Your task to perform on an android device: set the timer Image 0: 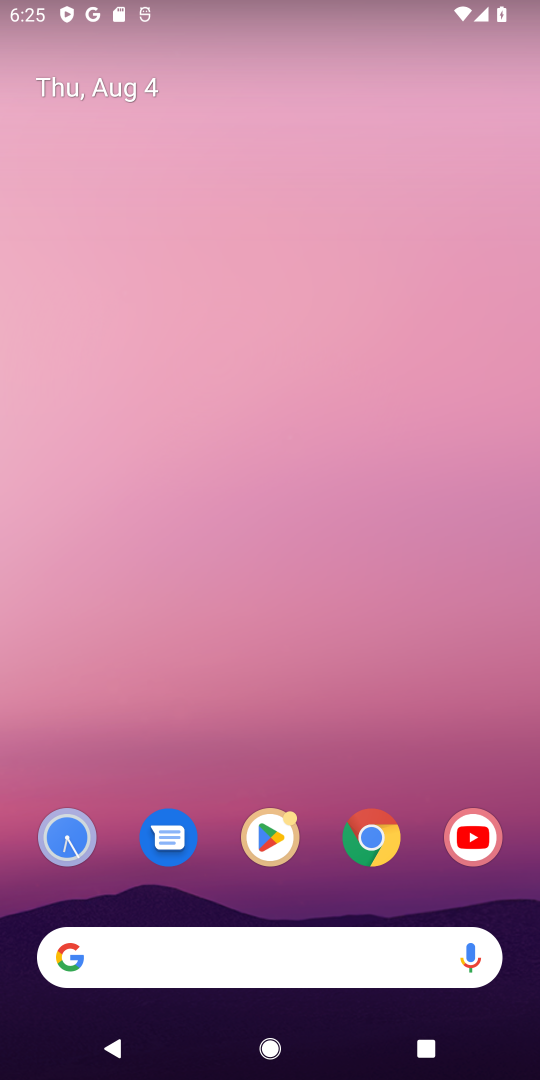
Step 0: press home button
Your task to perform on an android device: set the timer Image 1: 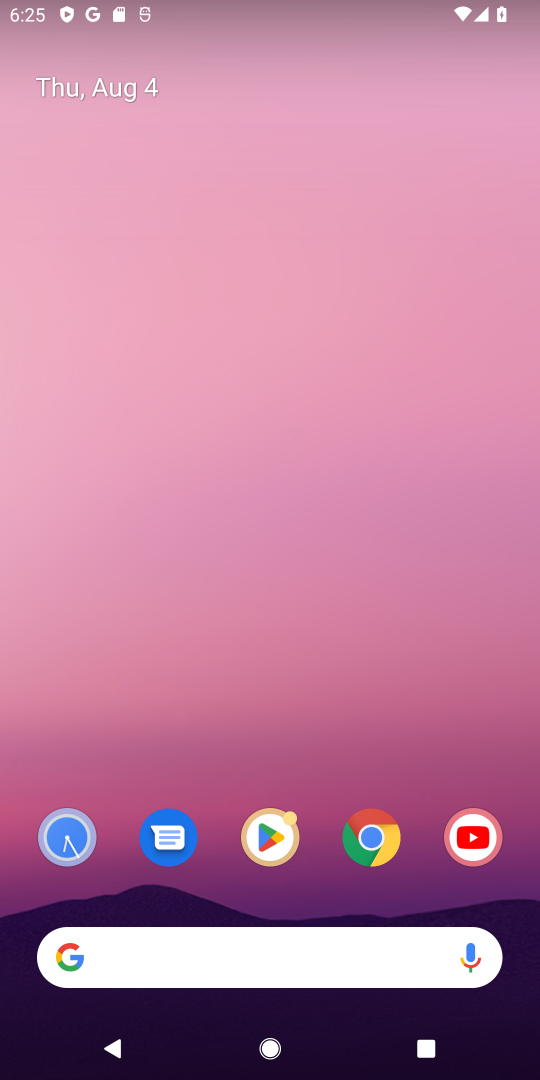
Step 1: press home button
Your task to perform on an android device: set the timer Image 2: 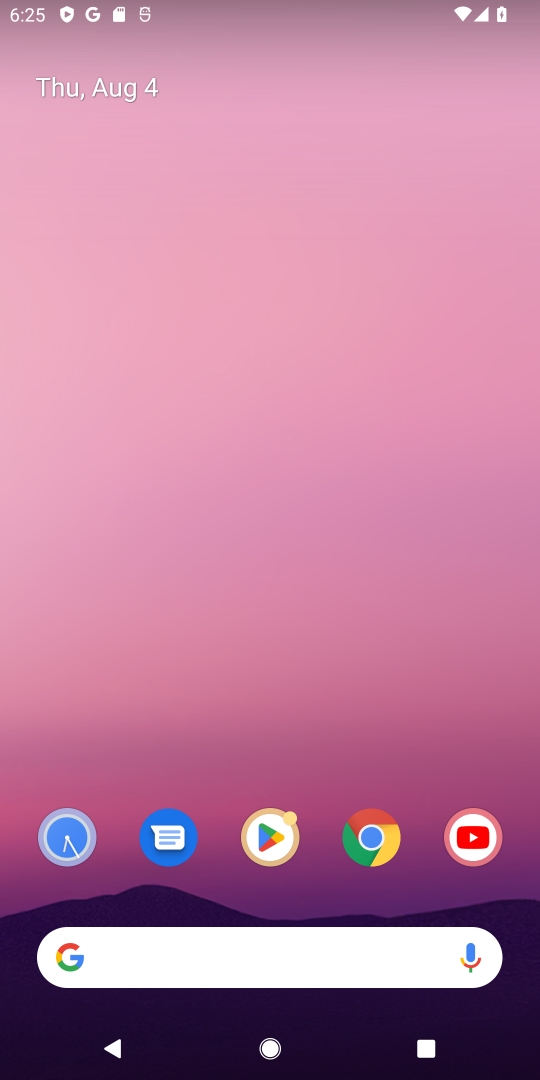
Step 2: click (307, 146)
Your task to perform on an android device: set the timer Image 3: 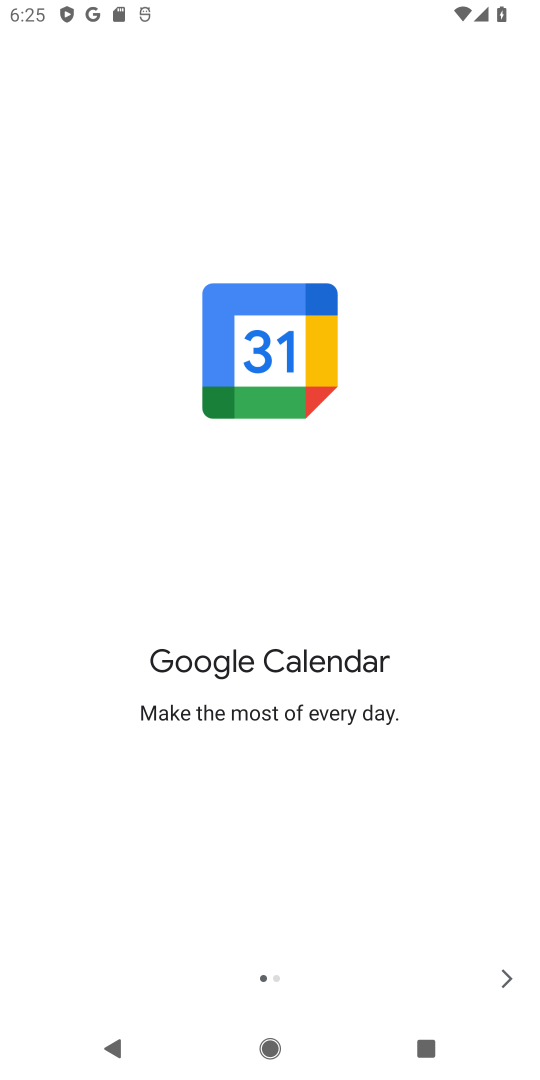
Step 3: press home button
Your task to perform on an android device: set the timer Image 4: 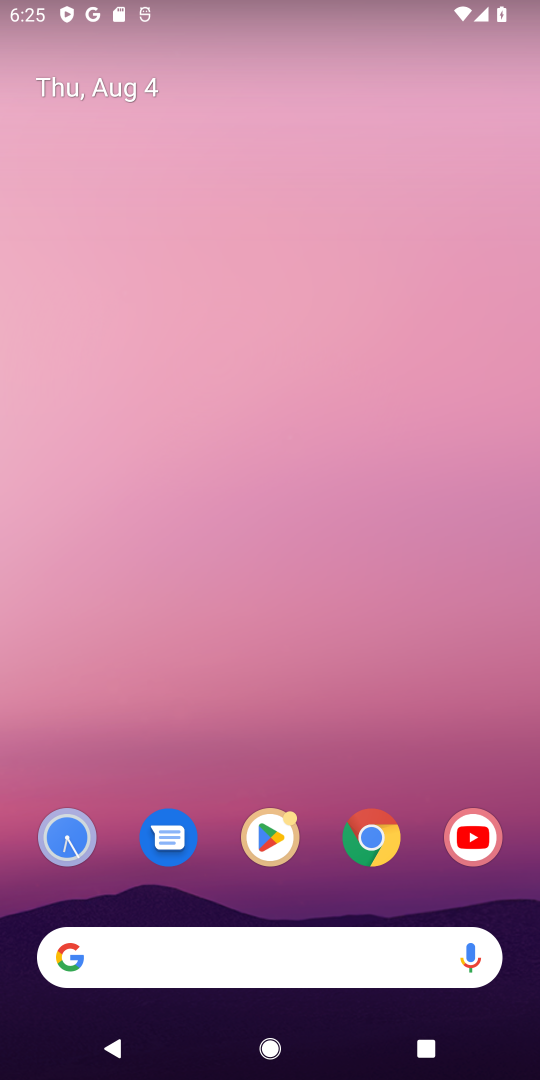
Step 4: drag from (322, 784) to (324, 105)
Your task to perform on an android device: set the timer Image 5: 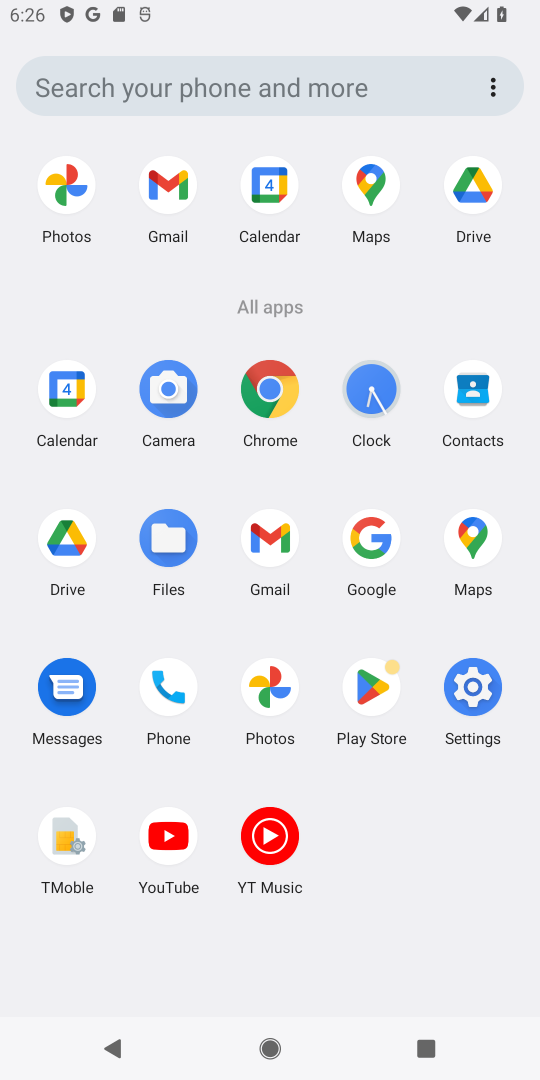
Step 5: click (371, 380)
Your task to perform on an android device: set the timer Image 6: 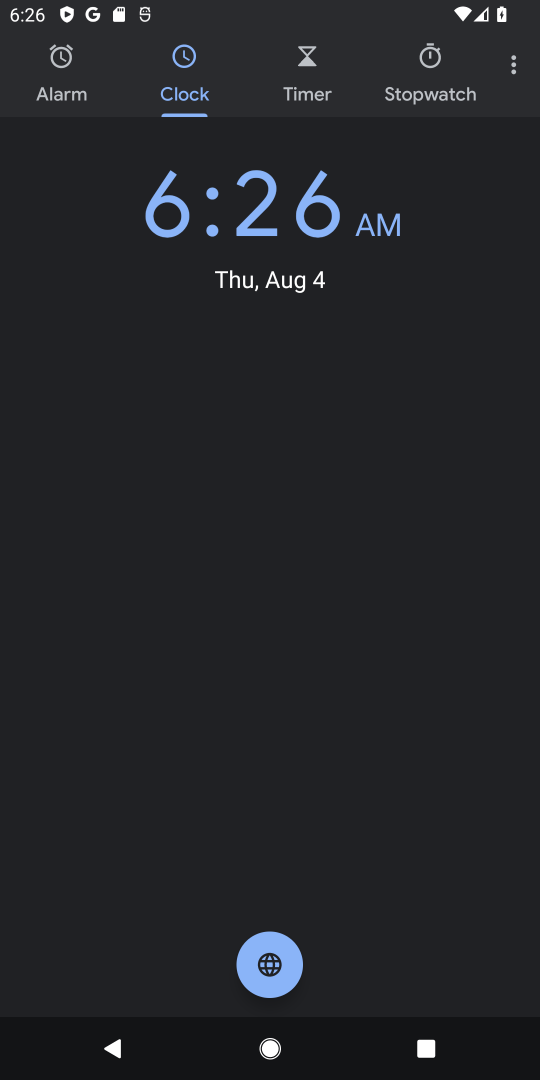
Step 6: click (320, 57)
Your task to perform on an android device: set the timer Image 7: 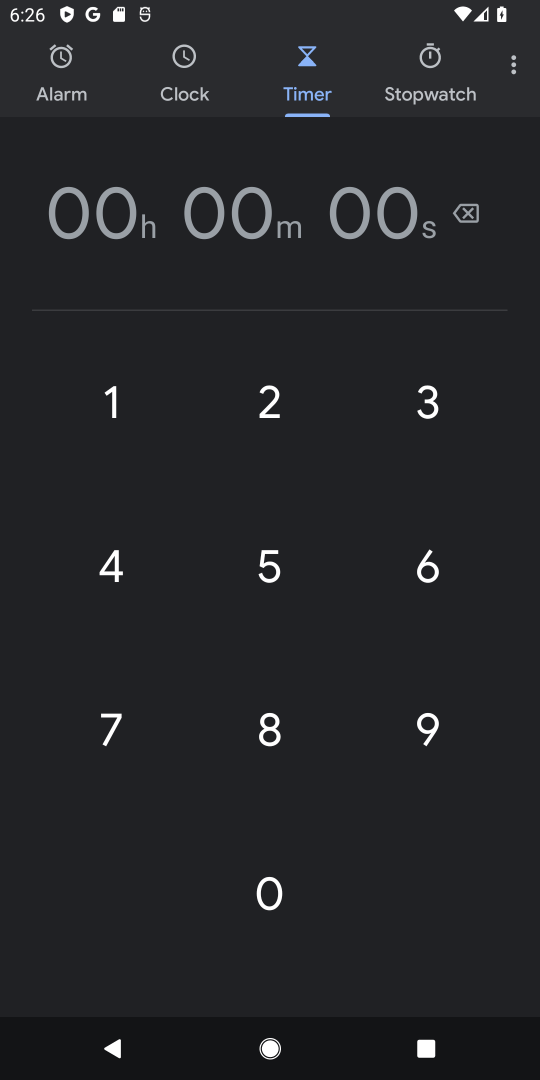
Step 7: click (424, 405)
Your task to perform on an android device: set the timer Image 8: 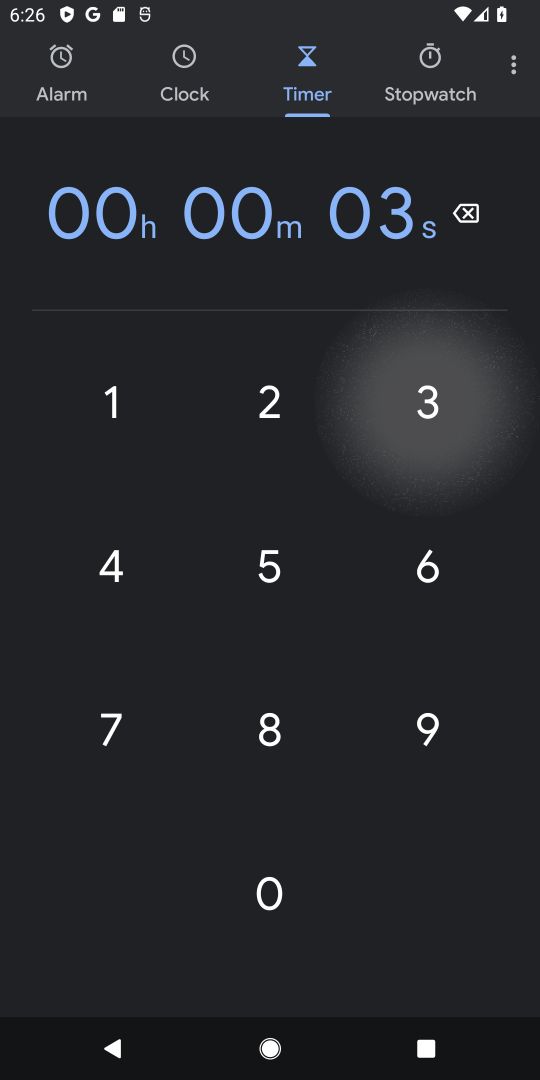
Step 8: click (259, 901)
Your task to perform on an android device: set the timer Image 9: 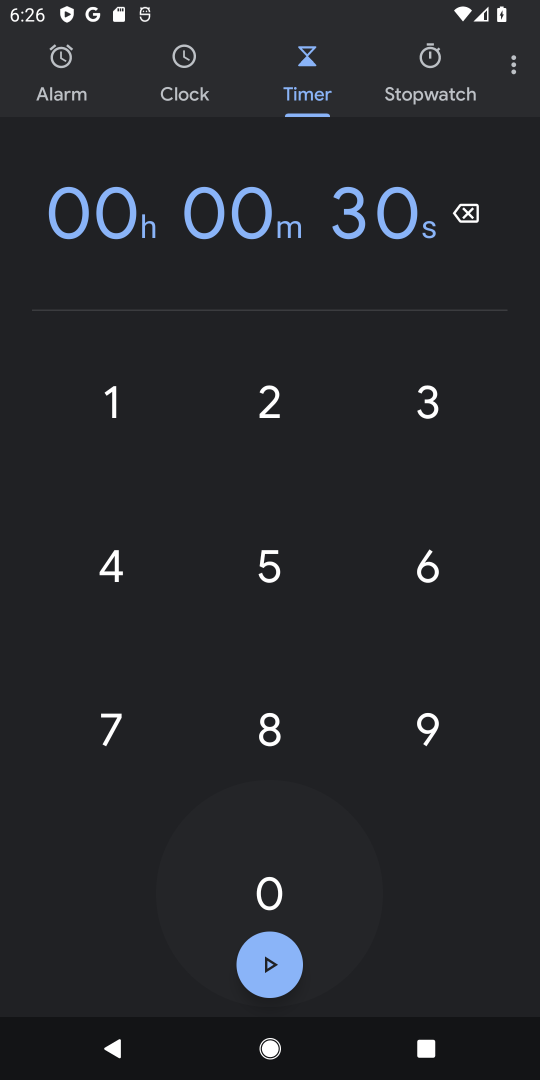
Step 9: click (259, 901)
Your task to perform on an android device: set the timer Image 10: 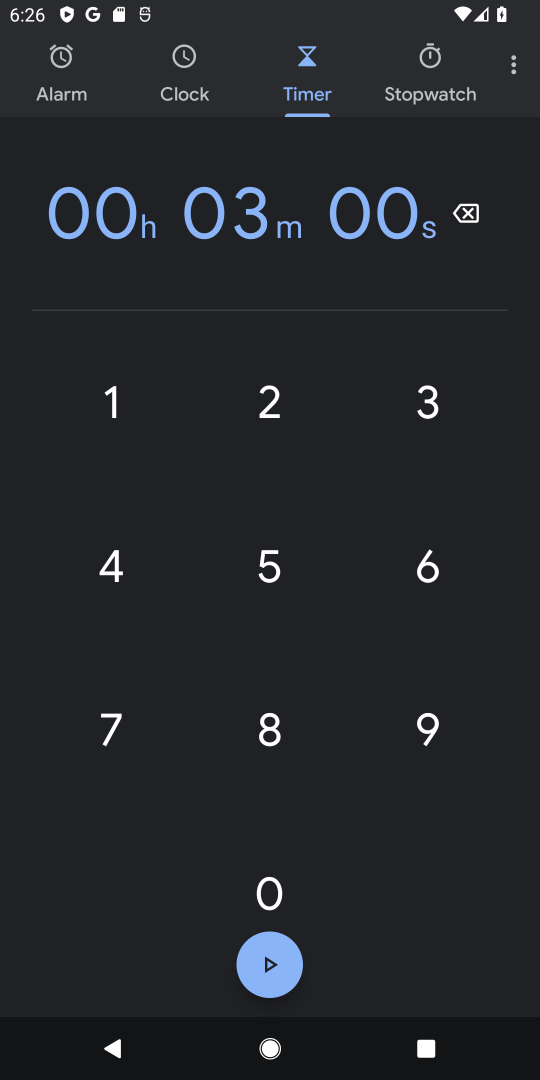
Step 10: click (260, 894)
Your task to perform on an android device: set the timer Image 11: 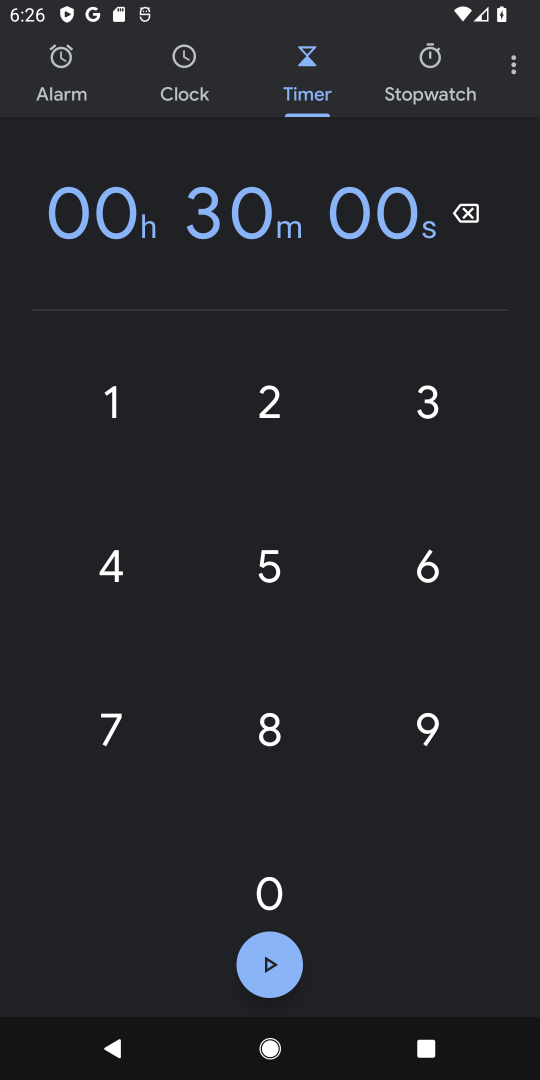
Step 11: click (275, 964)
Your task to perform on an android device: set the timer Image 12: 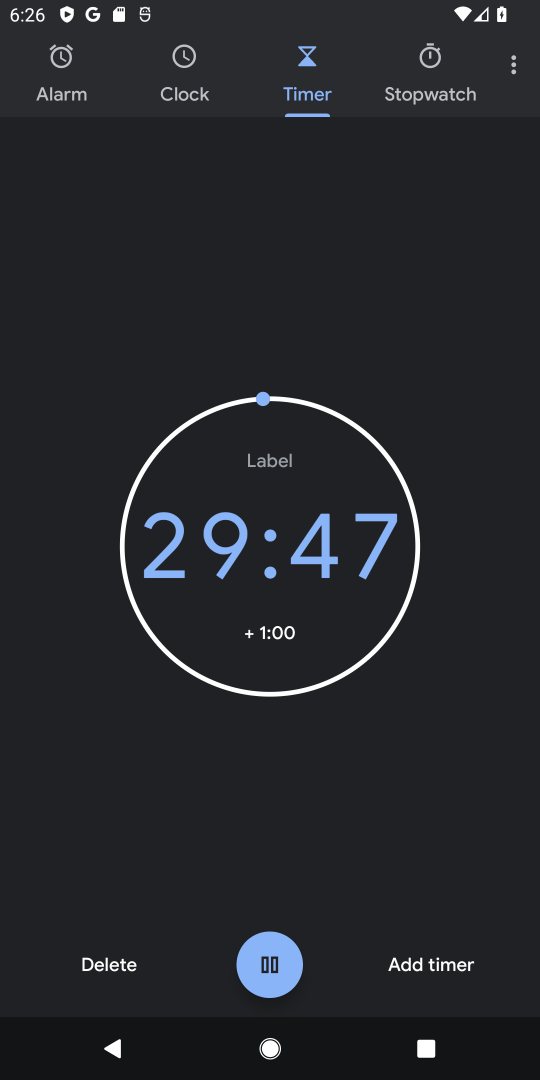
Step 12: task complete